Your task to perform on an android device: Do I have any events tomorrow? Image 0: 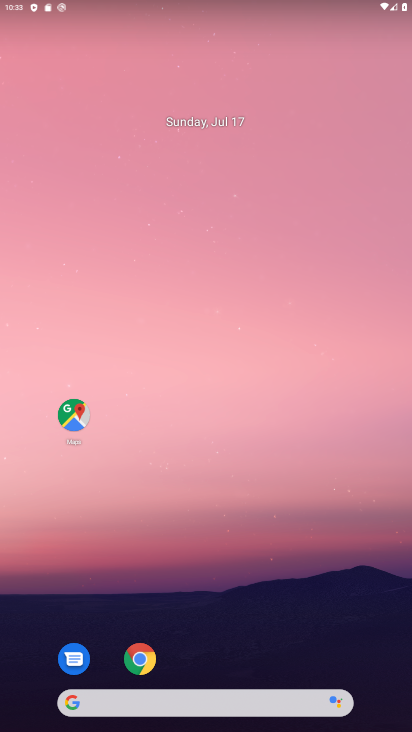
Step 0: drag from (210, 131) to (192, 0)
Your task to perform on an android device: Do I have any events tomorrow? Image 1: 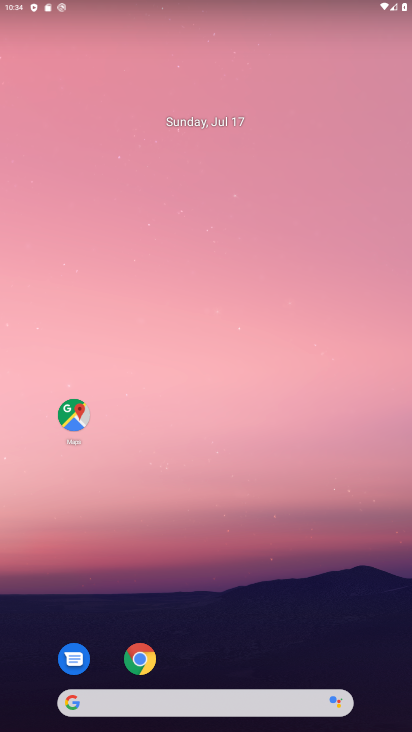
Step 1: drag from (330, 623) to (290, 44)
Your task to perform on an android device: Do I have any events tomorrow? Image 2: 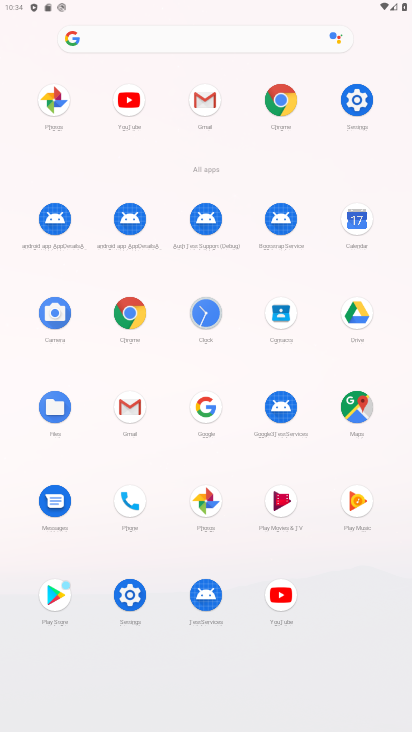
Step 2: click (360, 217)
Your task to perform on an android device: Do I have any events tomorrow? Image 3: 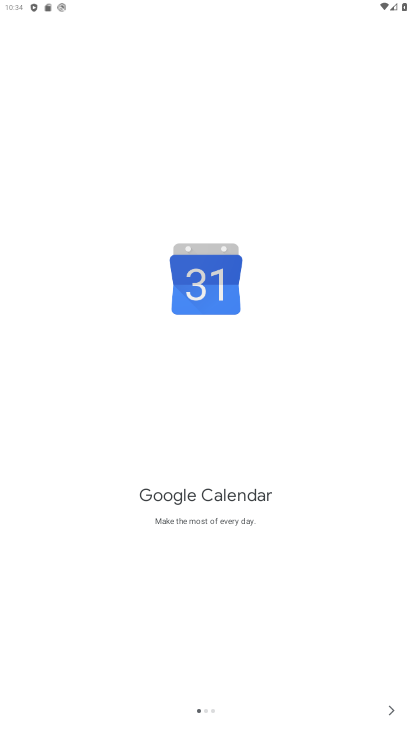
Step 3: click (397, 700)
Your task to perform on an android device: Do I have any events tomorrow? Image 4: 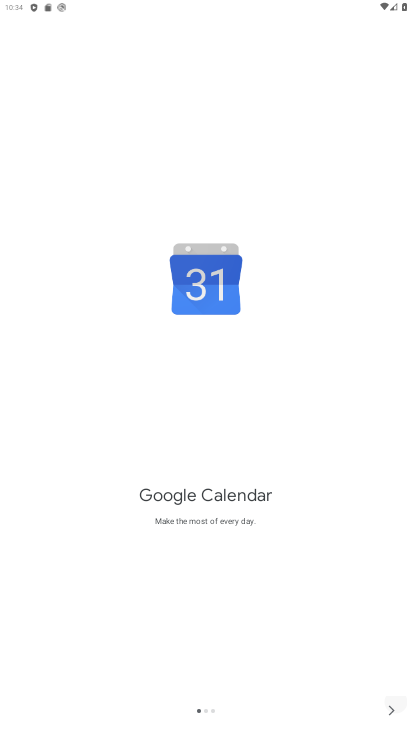
Step 4: click (397, 698)
Your task to perform on an android device: Do I have any events tomorrow? Image 5: 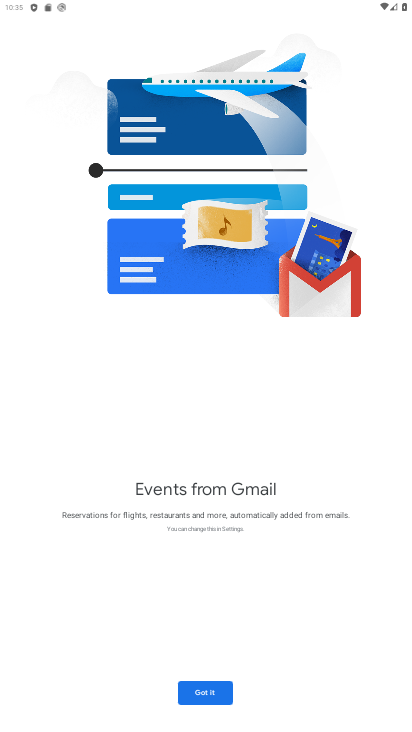
Step 5: click (200, 670)
Your task to perform on an android device: Do I have any events tomorrow? Image 6: 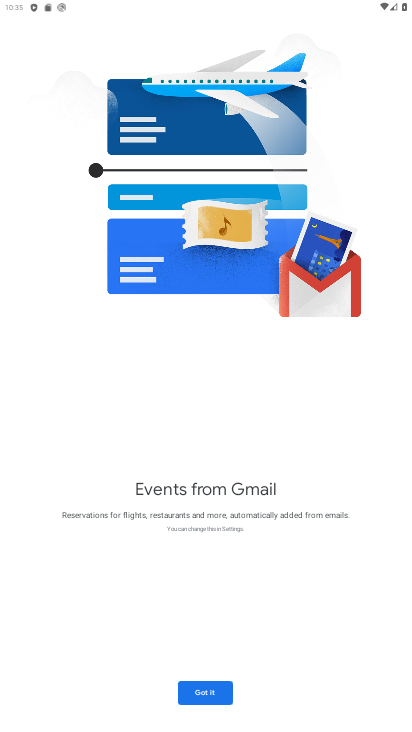
Step 6: press home button
Your task to perform on an android device: Do I have any events tomorrow? Image 7: 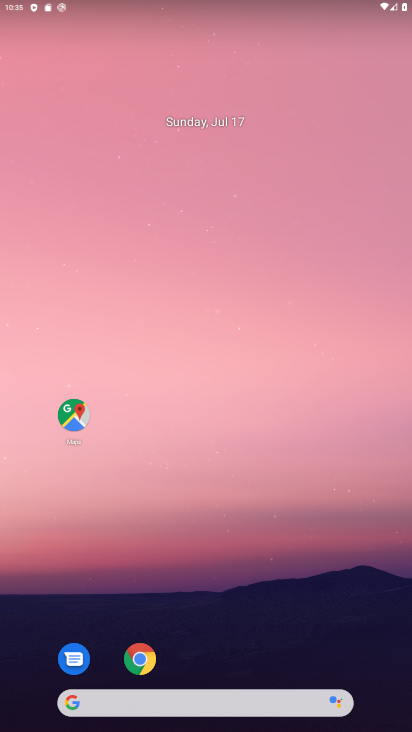
Step 7: drag from (289, 621) to (253, 45)
Your task to perform on an android device: Do I have any events tomorrow? Image 8: 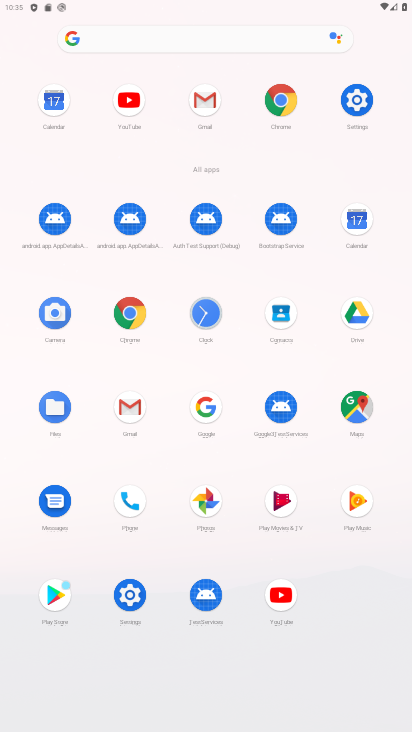
Step 8: click (352, 212)
Your task to perform on an android device: Do I have any events tomorrow? Image 9: 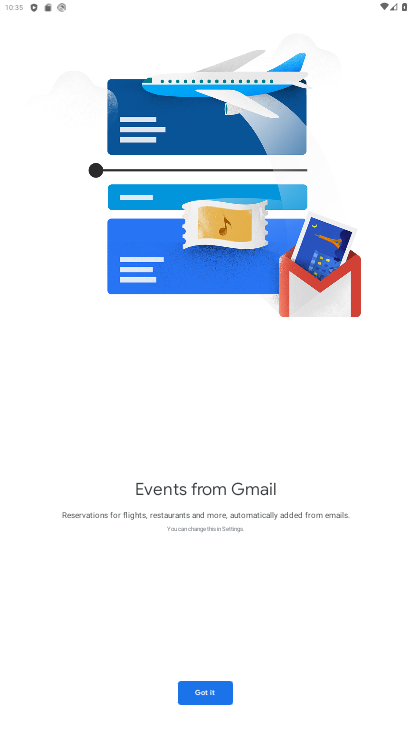
Step 9: click (203, 695)
Your task to perform on an android device: Do I have any events tomorrow? Image 10: 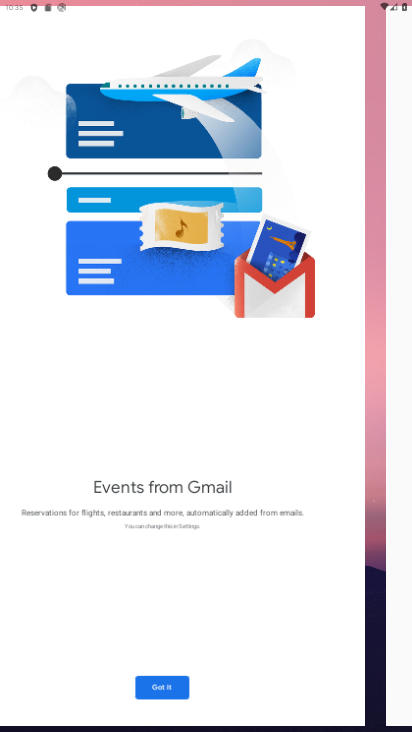
Step 10: click (201, 691)
Your task to perform on an android device: Do I have any events tomorrow? Image 11: 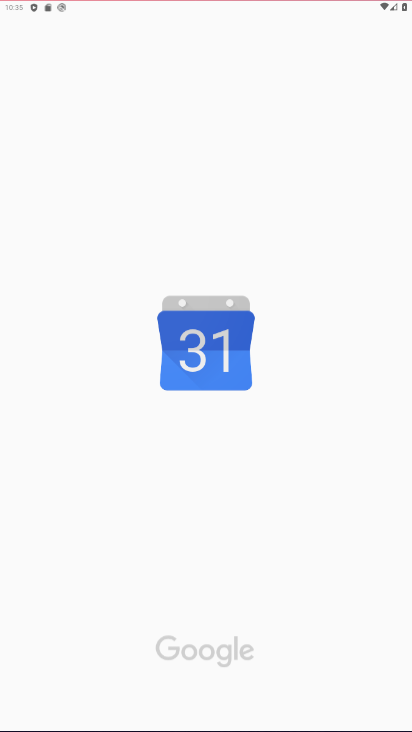
Step 11: click (199, 688)
Your task to perform on an android device: Do I have any events tomorrow? Image 12: 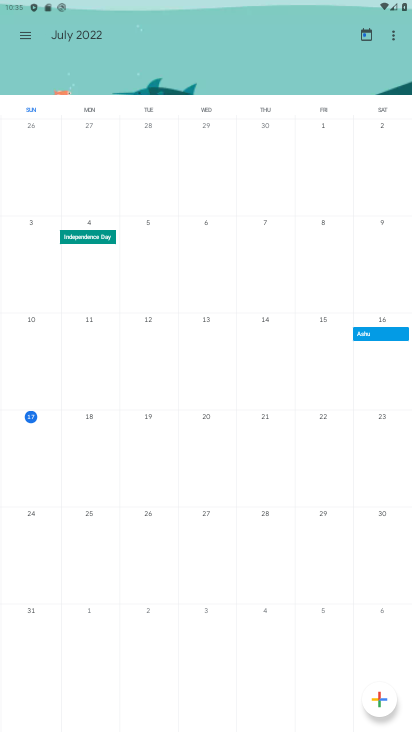
Step 12: click (92, 420)
Your task to perform on an android device: Do I have any events tomorrow? Image 13: 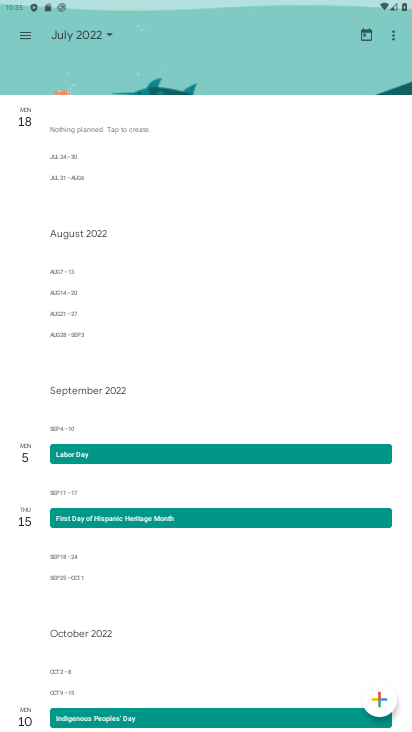
Step 13: task complete